Your task to perform on an android device: toggle airplane mode Image 0: 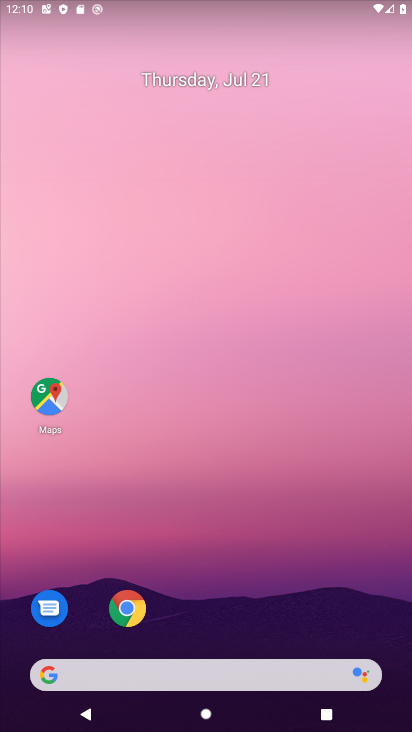
Step 0: drag from (252, 9) to (309, 563)
Your task to perform on an android device: toggle airplane mode Image 1: 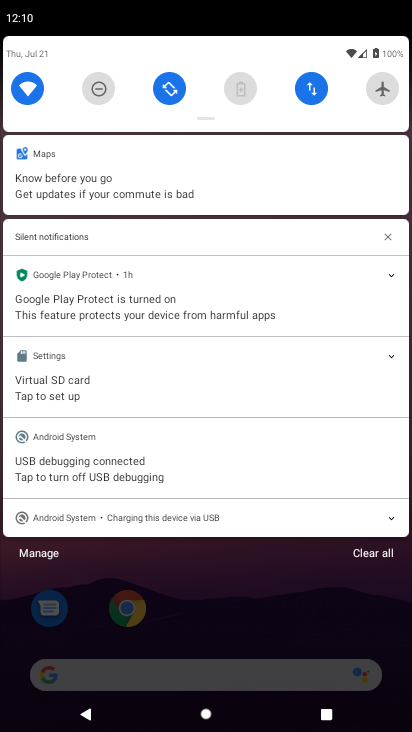
Step 1: click (385, 90)
Your task to perform on an android device: toggle airplane mode Image 2: 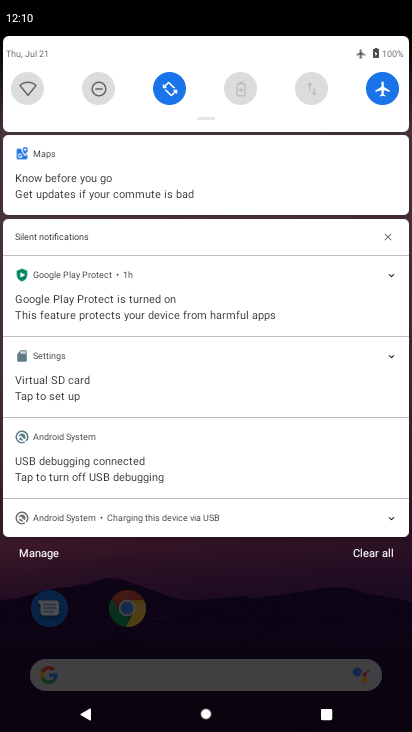
Step 2: task complete